Your task to perform on an android device: Show me the alarms in the clock app Image 0: 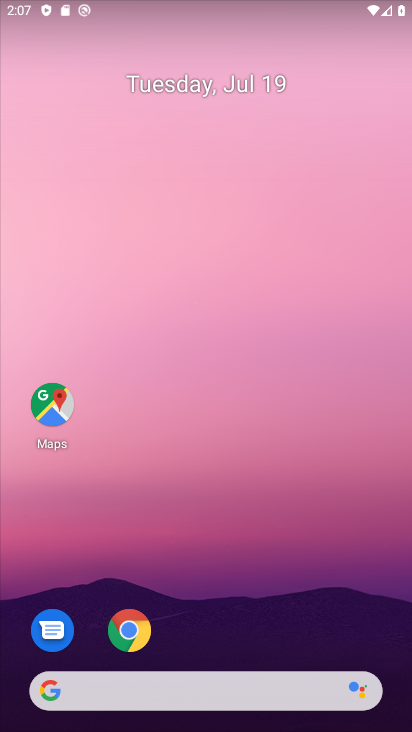
Step 0: drag from (255, 590) to (287, 88)
Your task to perform on an android device: Show me the alarms in the clock app Image 1: 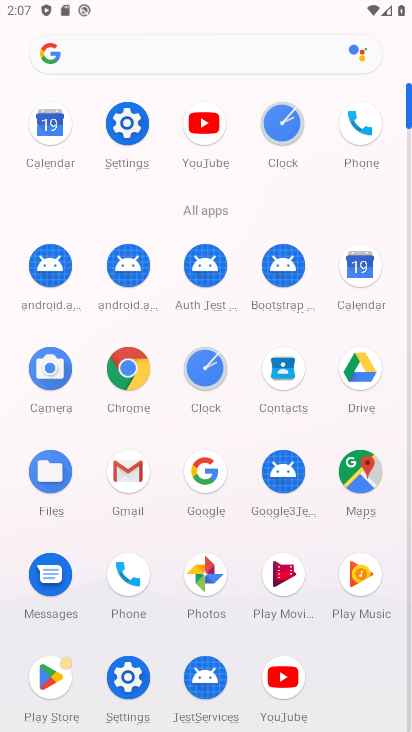
Step 1: click (288, 123)
Your task to perform on an android device: Show me the alarms in the clock app Image 2: 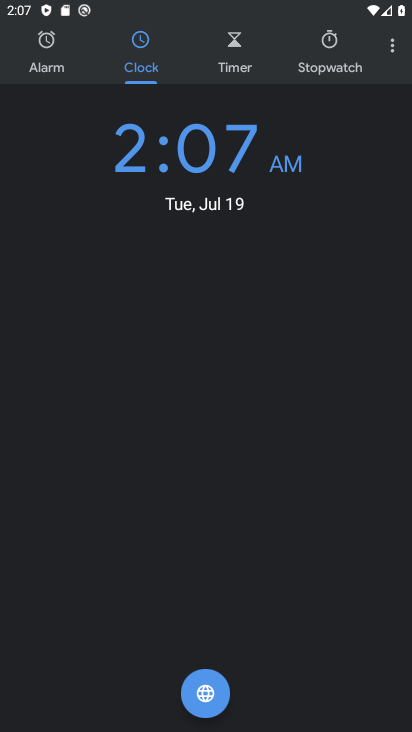
Step 2: click (50, 55)
Your task to perform on an android device: Show me the alarms in the clock app Image 3: 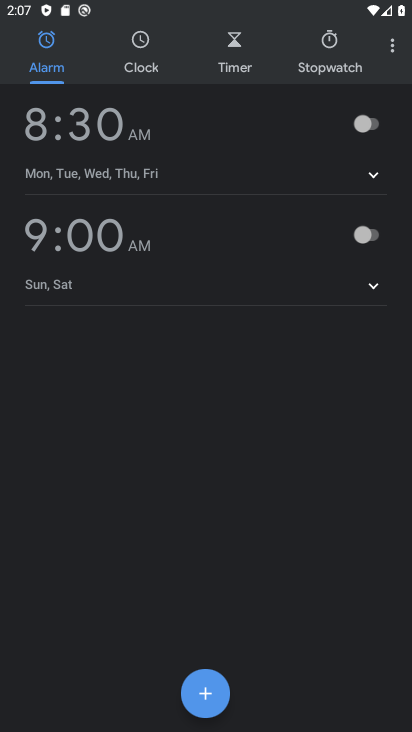
Step 3: task complete